Your task to perform on an android device: change the clock display to show seconds Image 0: 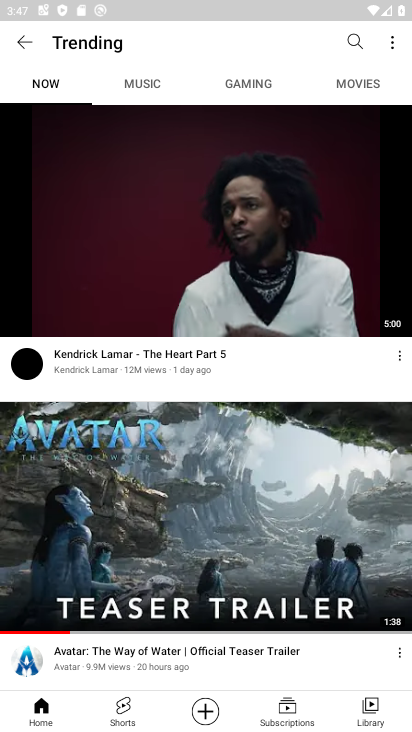
Step 0: press home button
Your task to perform on an android device: change the clock display to show seconds Image 1: 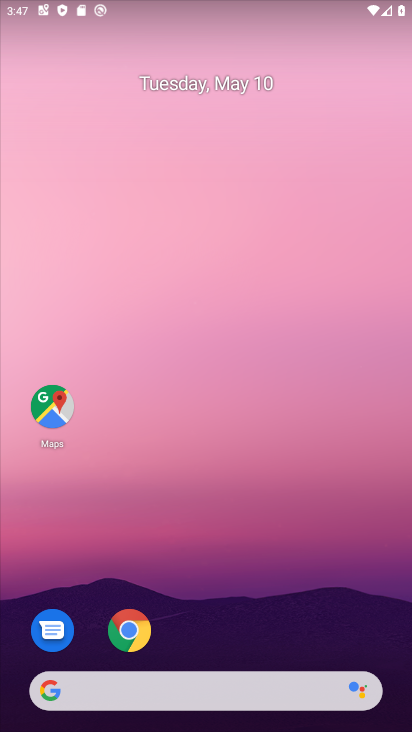
Step 1: drag from (208, 631) to (237, 183)
Your task to perform on an android device: change the clock display to show seconds Image 2: 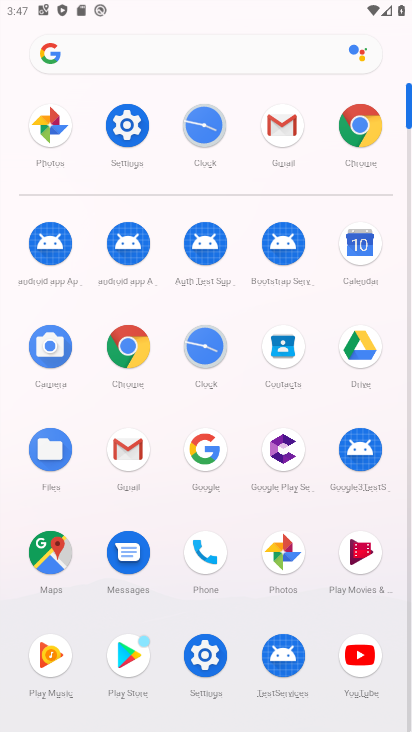
Step 2: click (201, 117)
Your task to perform on an android device: change the clock display to show seconds Image 3: 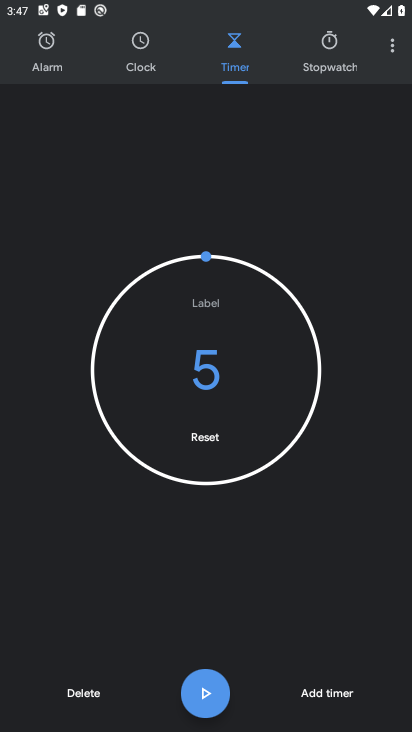
Step 3: click (382, 44)
Your task to perform on an android device: change the clock display to show seconds Image 4: 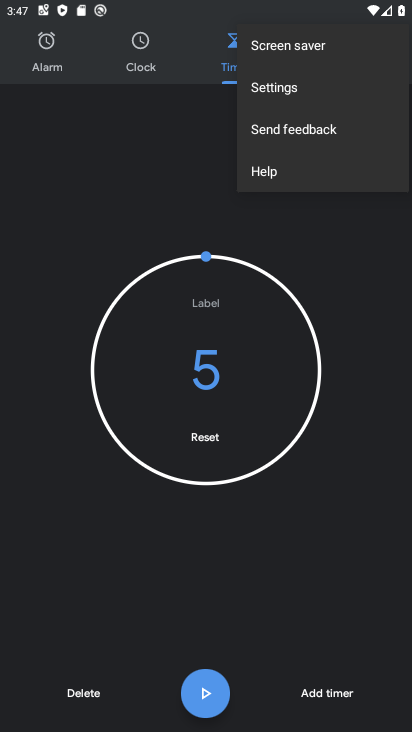
Step 4: click (334, 91)
Your task to perform on an android device: change the clock display to show seconds Image 5: 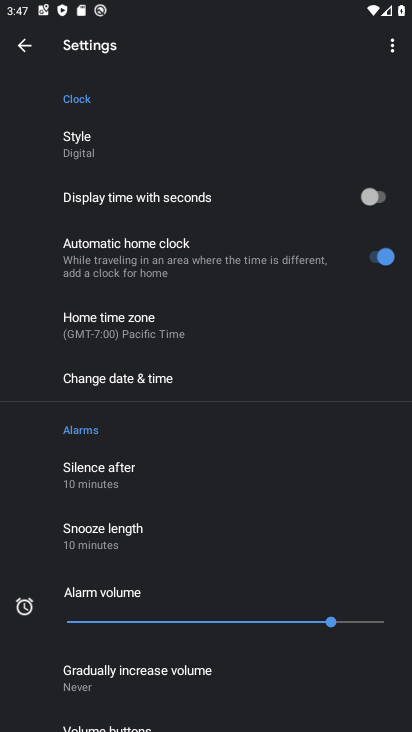
Step 5: click (378, 208)
Your task to perform on an android device: change the clock display to show seconds Image 6: 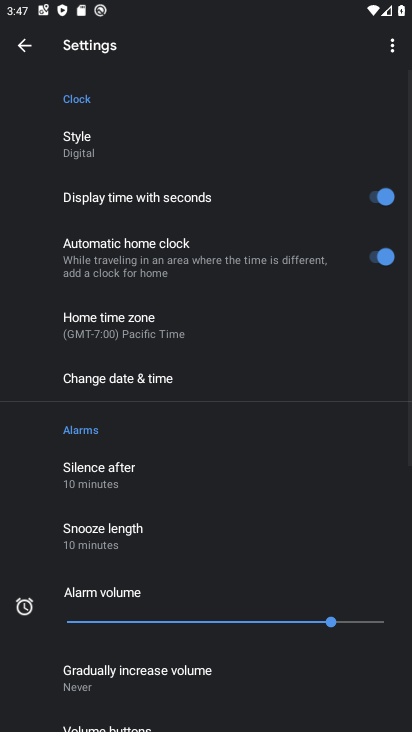
Step 6: task complete